Your task to perform on an android device: open a new tab in the chrome app Image 0: 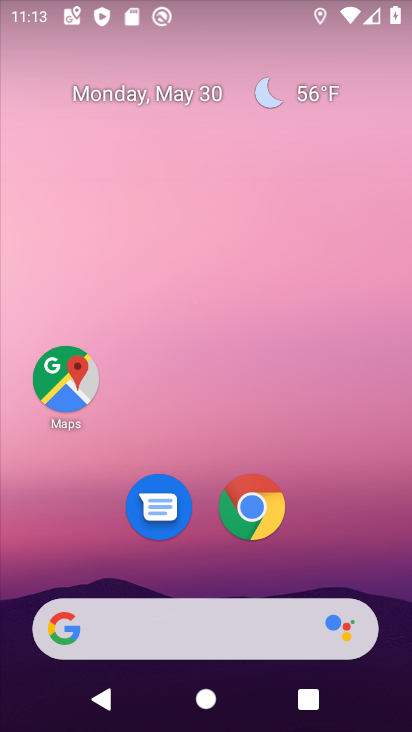
Step 0: click (259, 526)
Your task to perform on an android device: open a new tab in the chrome app Image 1: 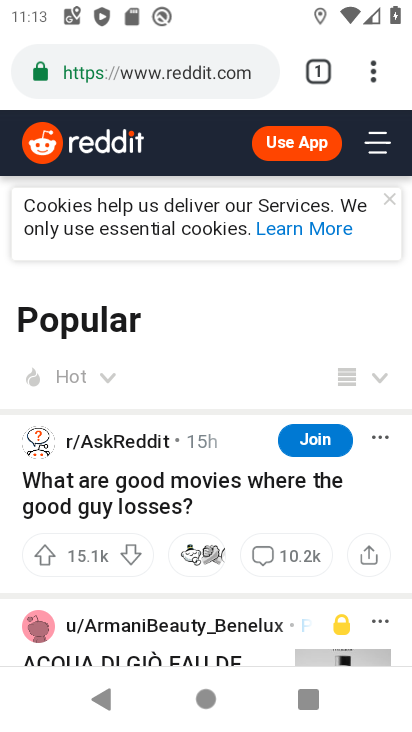
Step 1: click (376, 75)
Your task to perform on an android device: open a new tab in the chrome app Image 2: 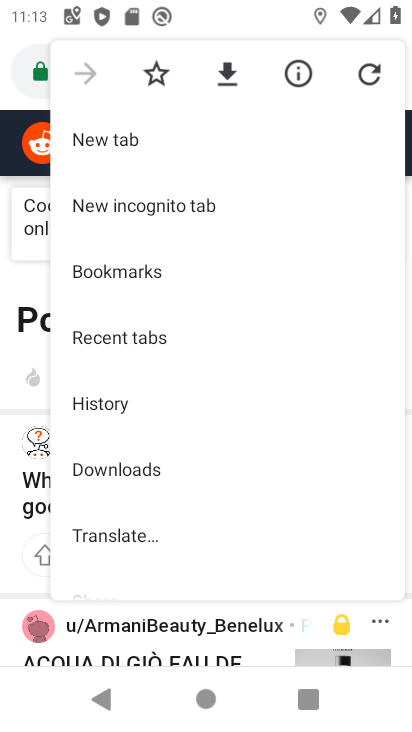
Step 2: click (93, 159)
Your task to perform on an android device: open a new tab in the chrome app Image 3: 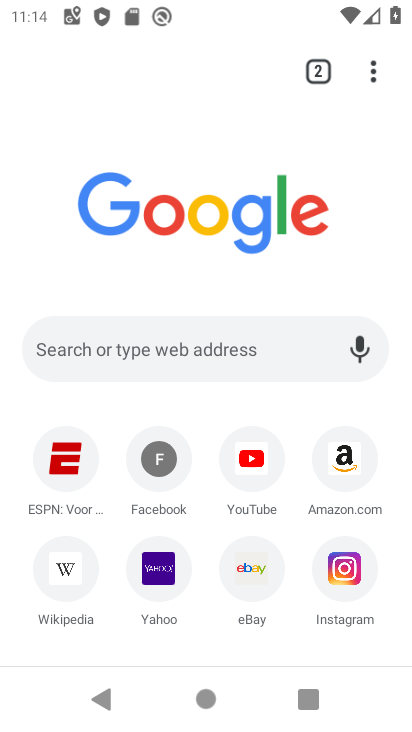
Step 3: task complete